Your task to perform on an android device: Play the last video I watched on Youtube Image 0: 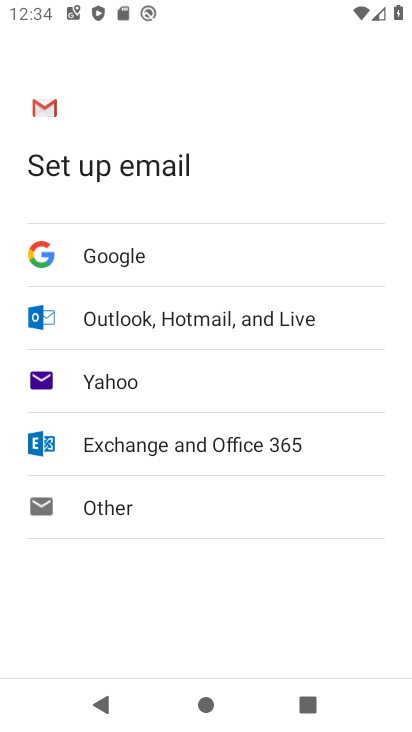
Step 0: press home button
Your task to perform on an android device: Play the last video I watched on Youtube Image 1: 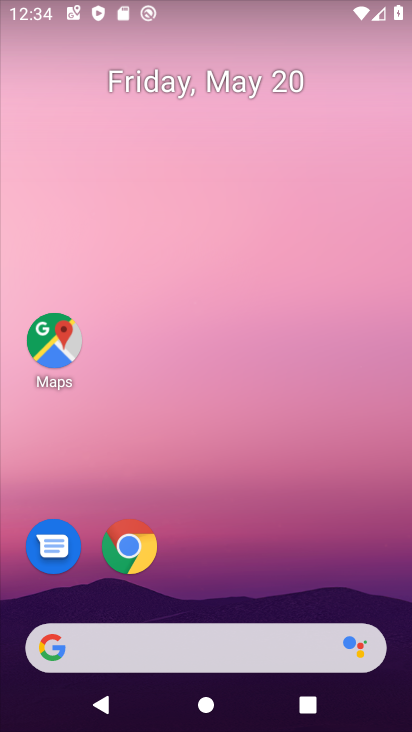
Step 1: drag from (247, 548) to (238, 31)
Your task to perform on an android device: Play the last video I watched on Youtube Image 2: 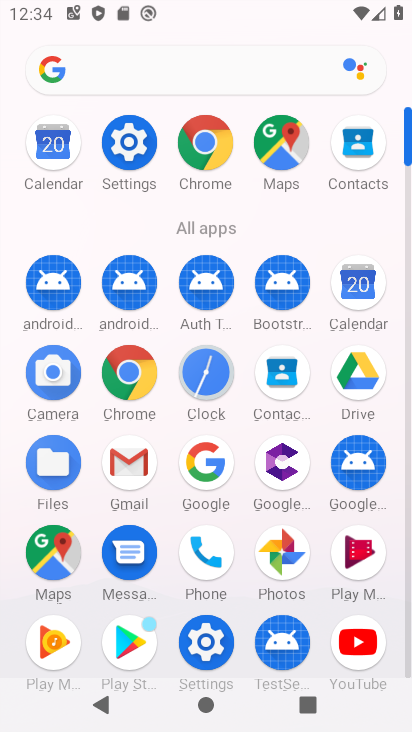
Step 2: click (359, 632)
Your task to perform on an android device: Play the last video I watched on Youtube Image 3: 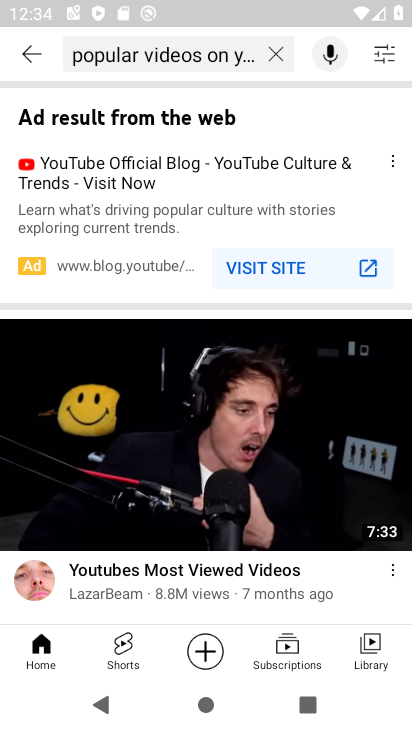
Step 3: click (371, 640)
Your task to perform on an android device: Play the last video I watched on Youtube Image 4: 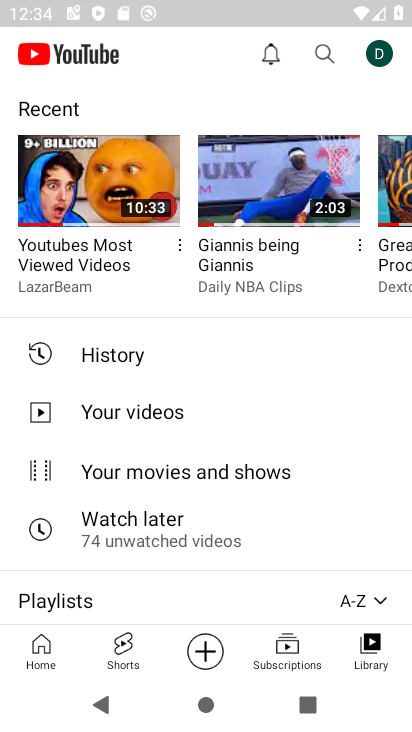
Step 4: click (110, 356)
Your task to perform on an android device: Play the last video I watched on Youtube Image 5: 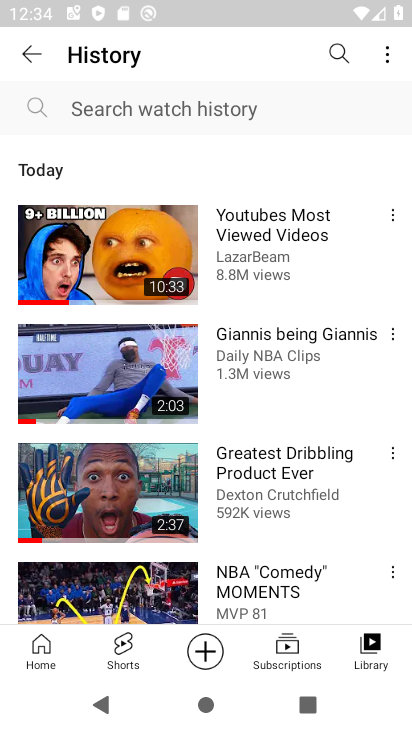
Step 5: click (167, 247)
Your task to perform on an android device: Play the last video I watched on Youtube Image 6: 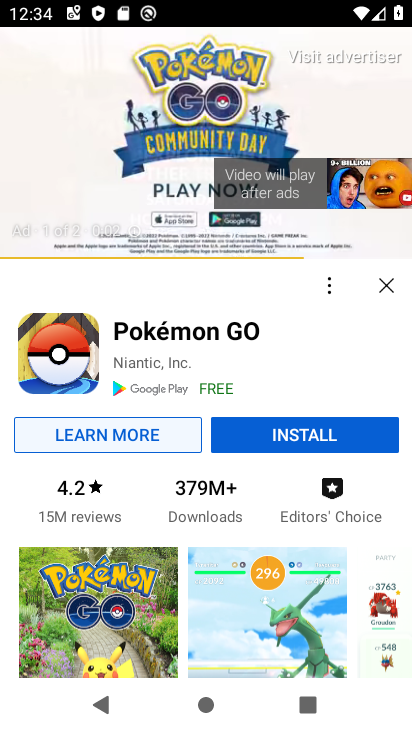
Step 6: task complete